Your task to perform on an android device: toggle data saver in the chrome app Image 0: 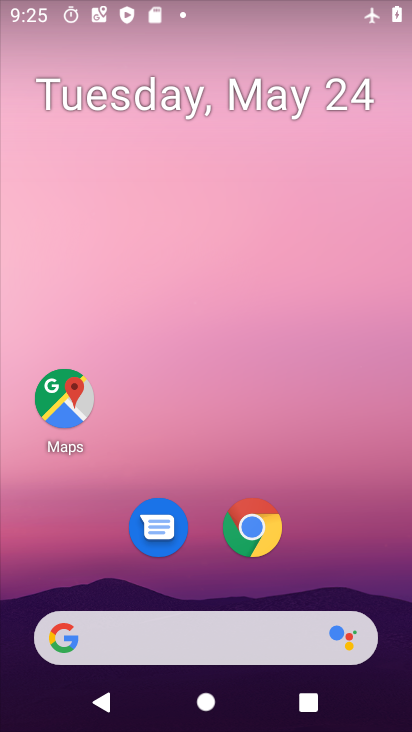
Step 0: click (250, 546)
Your task to perform on an android device: toggle data saver in the chrome app Image 1: 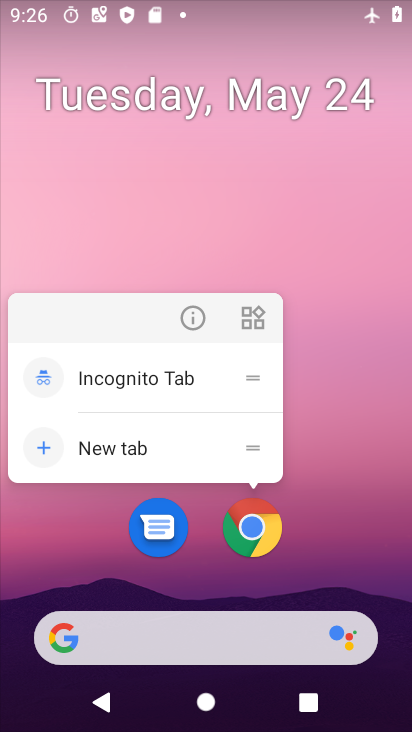
Step 1: click (252, 530)
Your task to perform on an android device: toggle data saver in the chrome app Image 2: 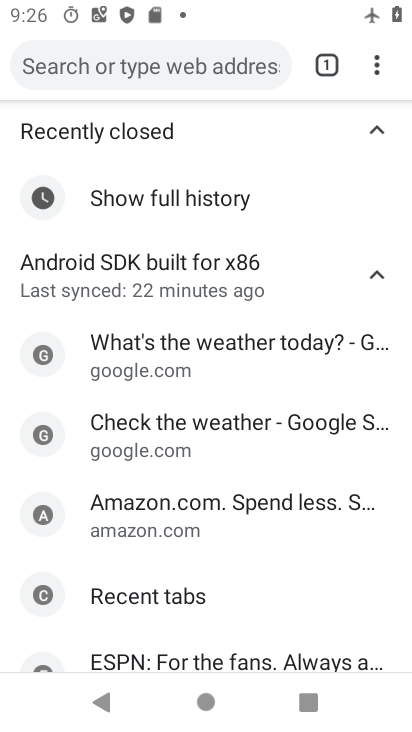
Step 2: click (375, 64)
Your task to perform on an android device: toggle data saver in the chrome app Image 3: 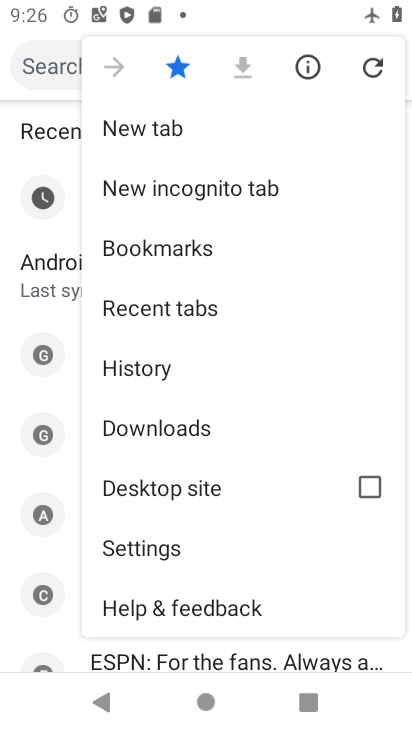
Step 3: click (154, 545)
Your task to perform on an android device: toggle data saver in the chrome app Image 4: 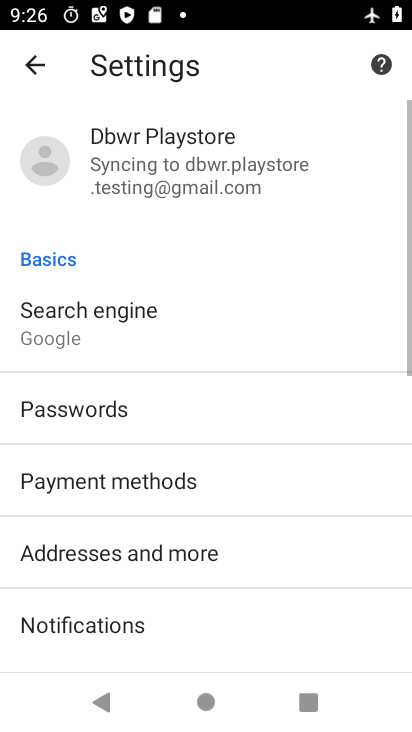
Step 4: drag from (293, 647) to (310, 240)
Your task to perform on an android device: toggle data saver in the chrome app Image 5: 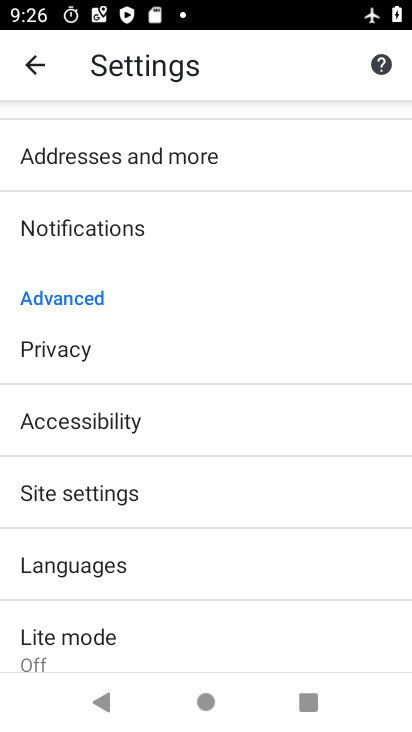
Step 5: click (89, 643)
Your task to perform on an android device: toggle data saver in the chrome app Image 6: 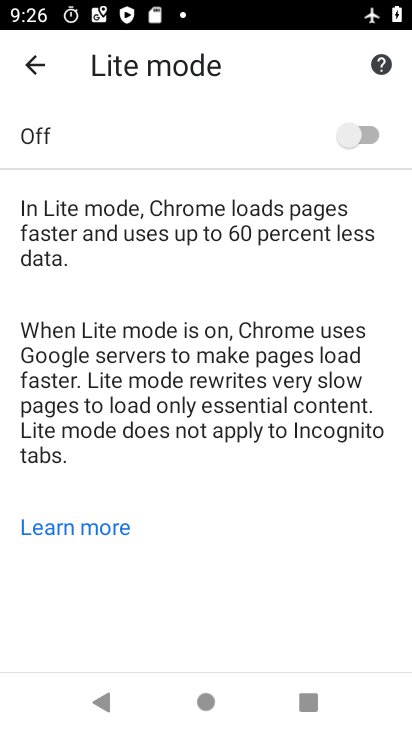
Step 6: click (366, 133)
Your task to perform on an android device: toggle data saver in the chrome app Image 7: 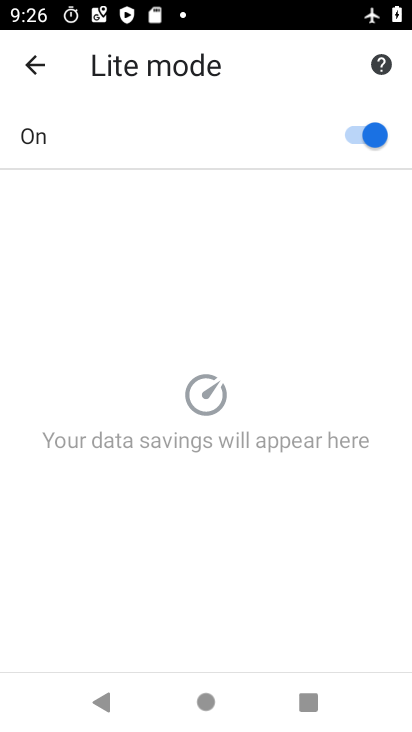
Step 7: task complete